Your task to perform on an android device: move an email to a new category in the gmail app Image 0: 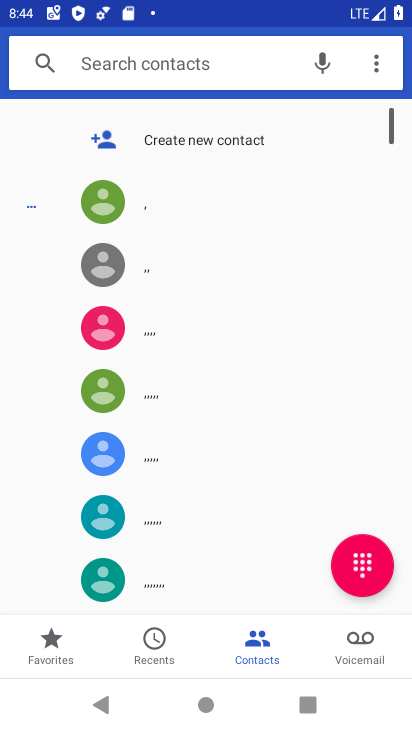
Step 0: press home button
Your task to perform on an android device: move an email to a new category in the gmail app Image 1: 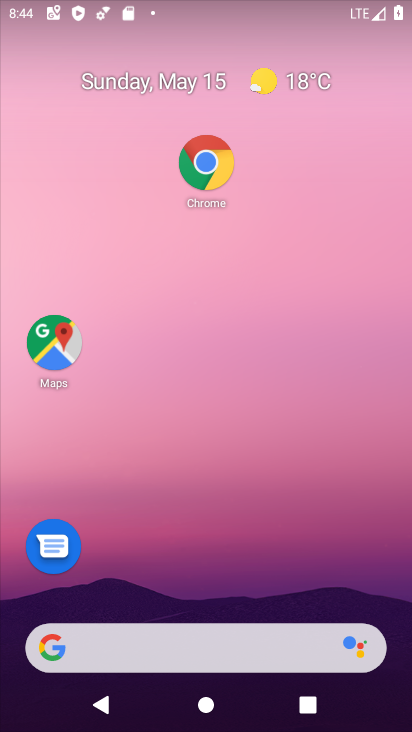
Step 1: drag from (192, 587) to (224, 224)
Your task to perform on an android device: move an email to a new category in the gmail app Image 2: 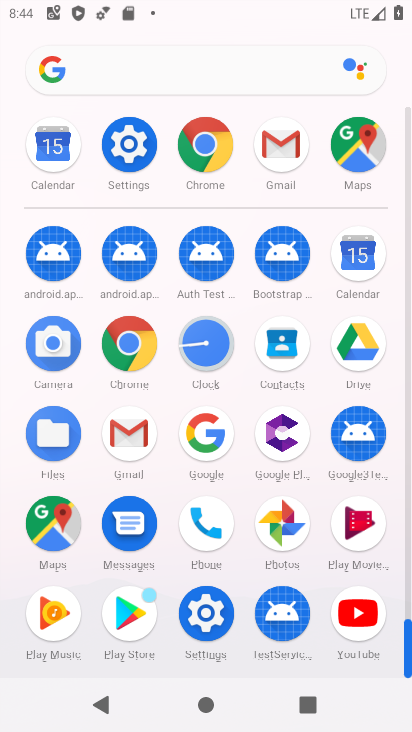
Step 2: click (279, 138)
Your task to perform on an android device: move an email to a new category in the gmail app Image 3: 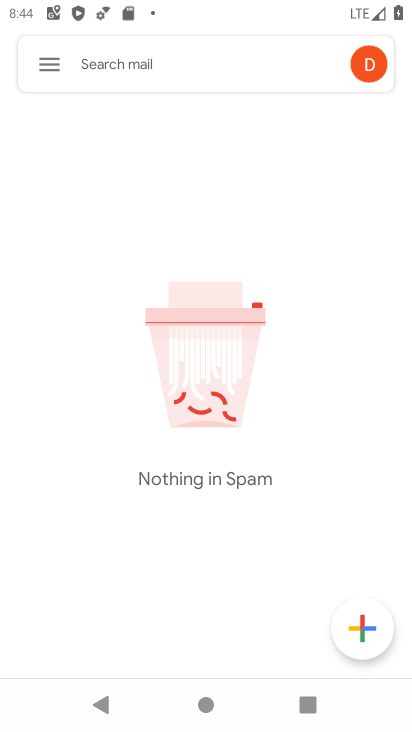
Step 3: click (43, 55)
Your task to perform on an android device: move an email to a new category in the gmail app Image 4: 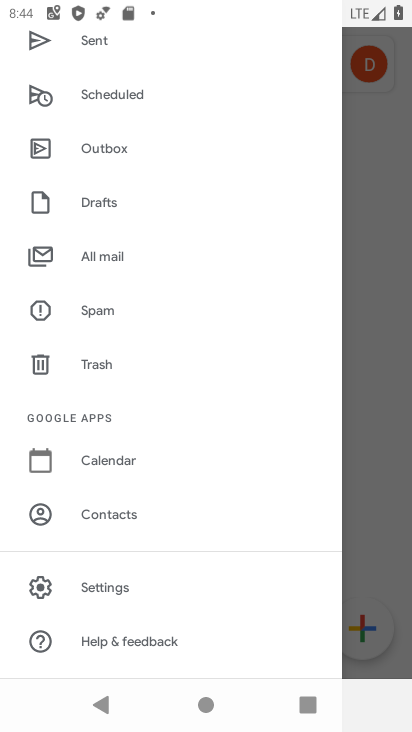
Step 4: click (150, 251)
Your task to perform on an android device: move an email to a new category in the gmail app Image 5: 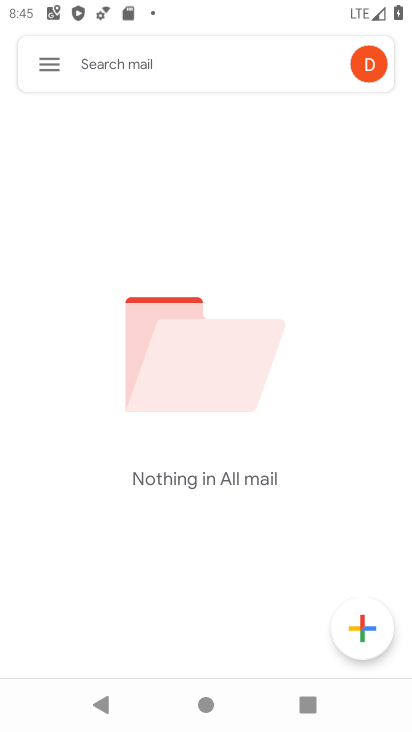
Step 5: task complete